Your task to perform on an android device: turn on notifications settings in the gmail app Image 0: 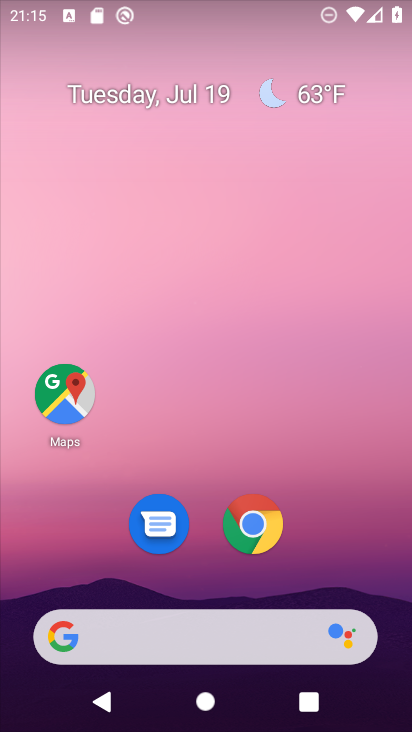
Step 0: drag from (315, 530) to (308, 72)
Your task to perform on an android device: turn on notifications settings in the gmail app Image 1: 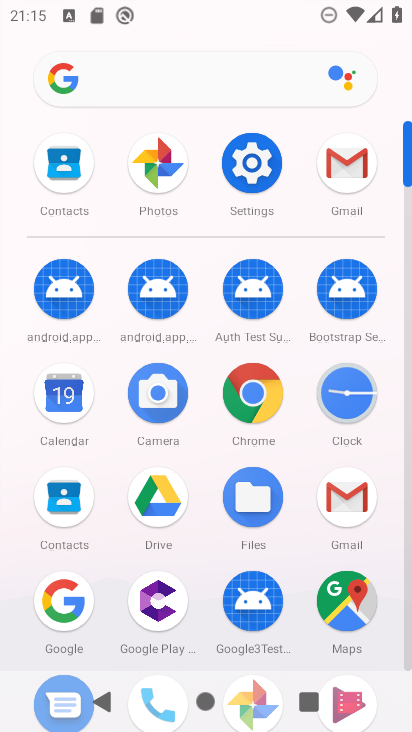
Step 1: click (338, 174)
Your task to perform on an android device: turn on notifications settings in the gmail app Image 2: 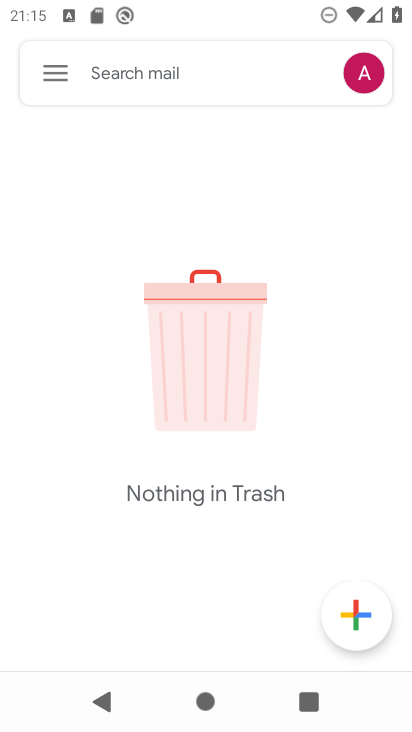
Step 2: click (57, 76)
Your task to perform on an android device: turn on notifications settings in the gmail app Image 3: 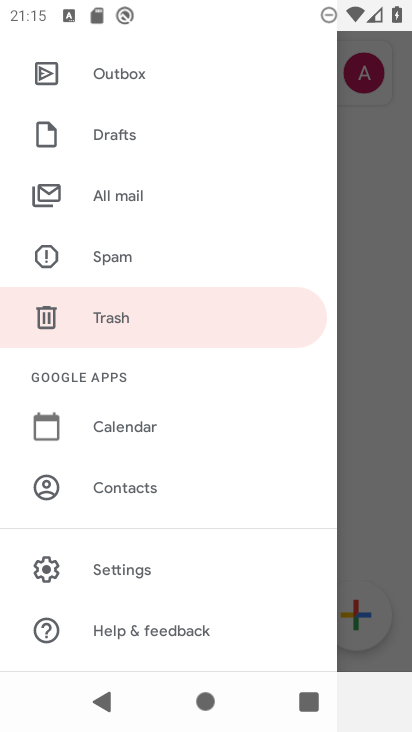
Step 3: click (139, 565)
Your task to perform on an android device: turn on notifications settings in the gmail app Image 4: 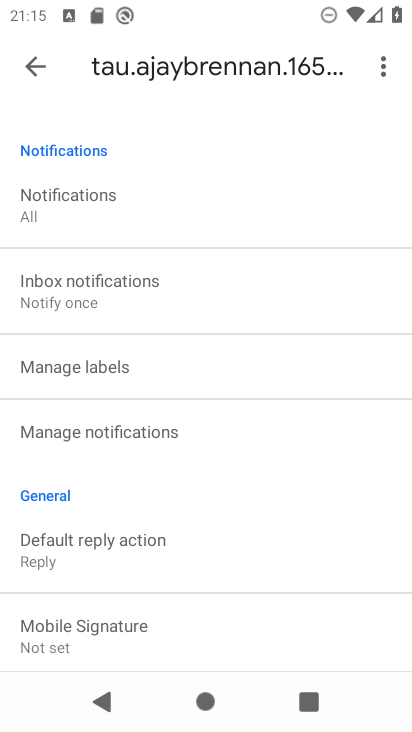
Step 4: click (180, 433)
Your task to perform on an android device: turn on notifications settings in the gmail app Image 5: 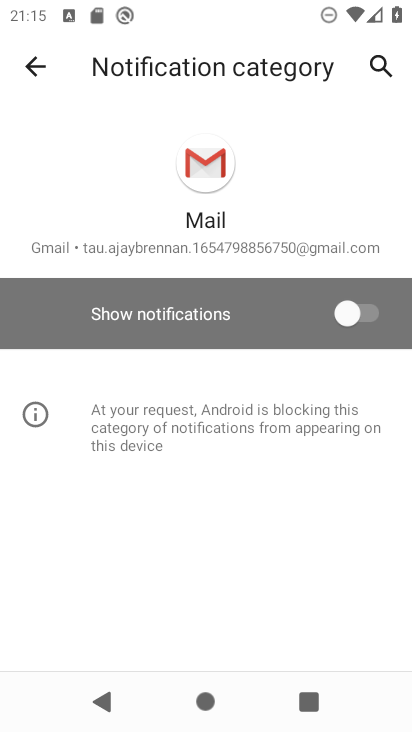
Step 5: click (360, 304)
Your task to perform on an android device: turn on notifications settings in the gmail app Image 6: 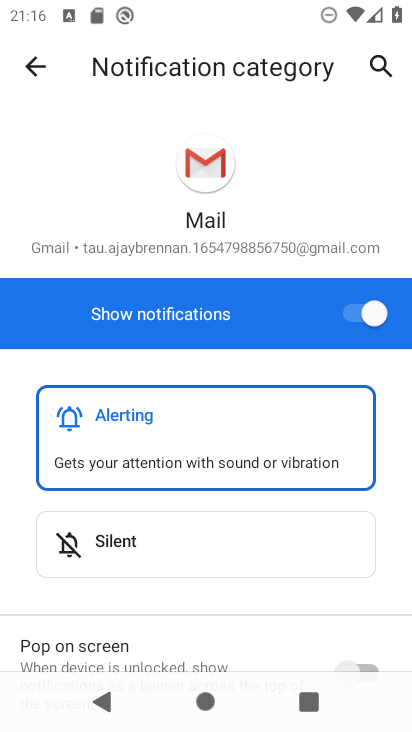
Step 6: task complete